Your task to perform on an android device: View the shopping cart on target. Image 0: 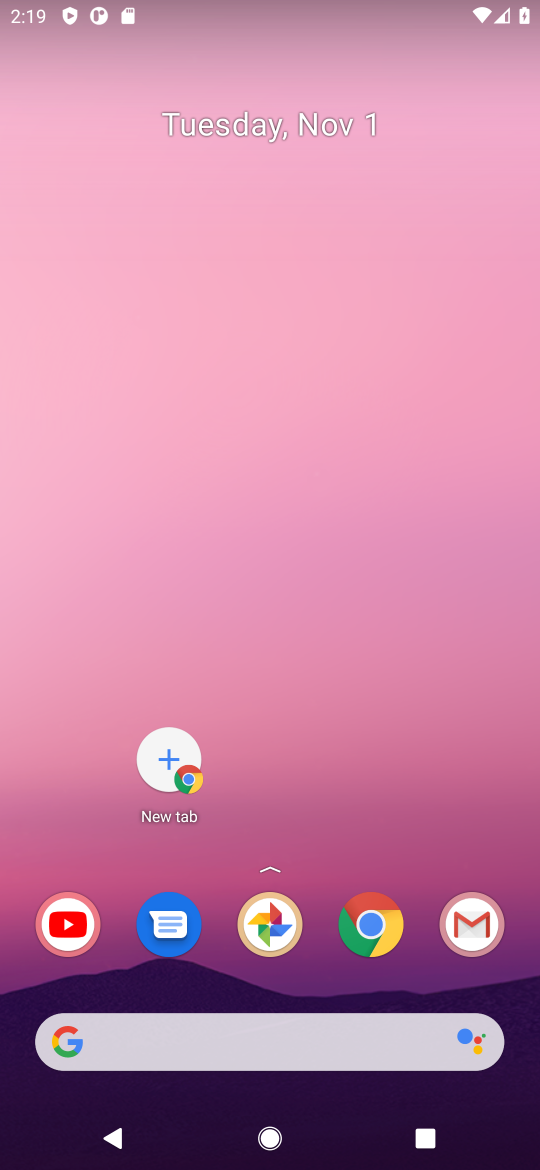
Step 0: click (384, 947)
Your task to perform on an android device: View the shopping cart on target. Image 1: 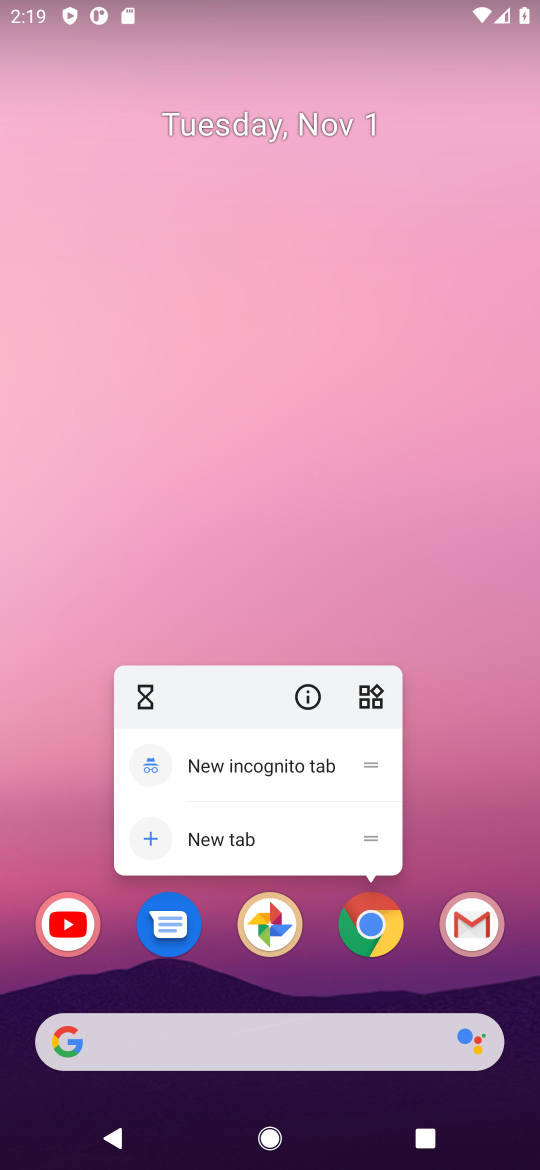
Step 1: click (389, 911)
Your task to perform on an android device: View the shopping cart on target. Image 2: 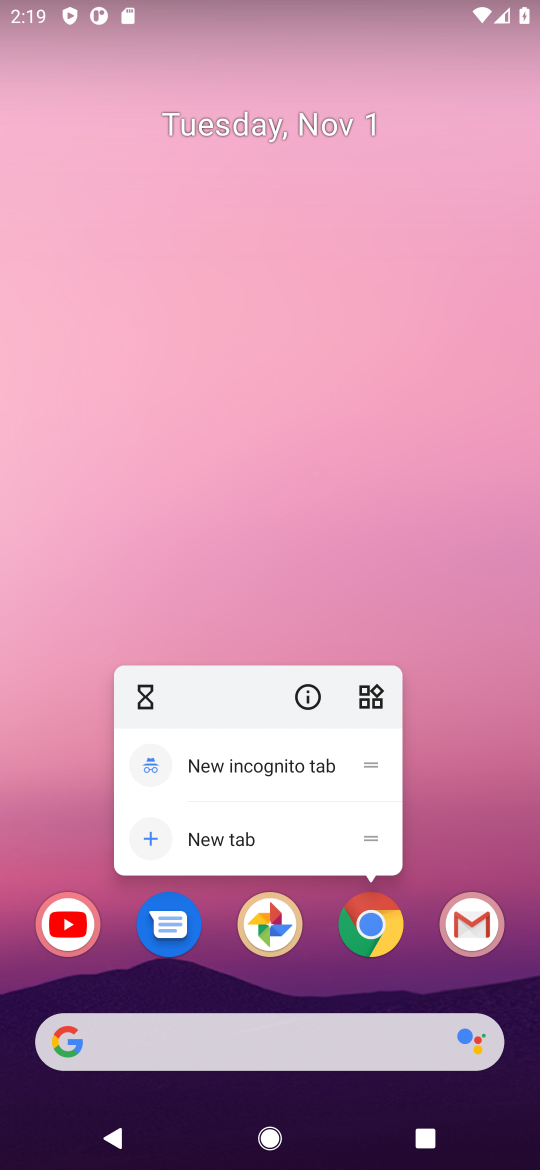
Step 2: click (369, 939)
Your task to perform on an android device: View the shopping cart on target. Image 3: 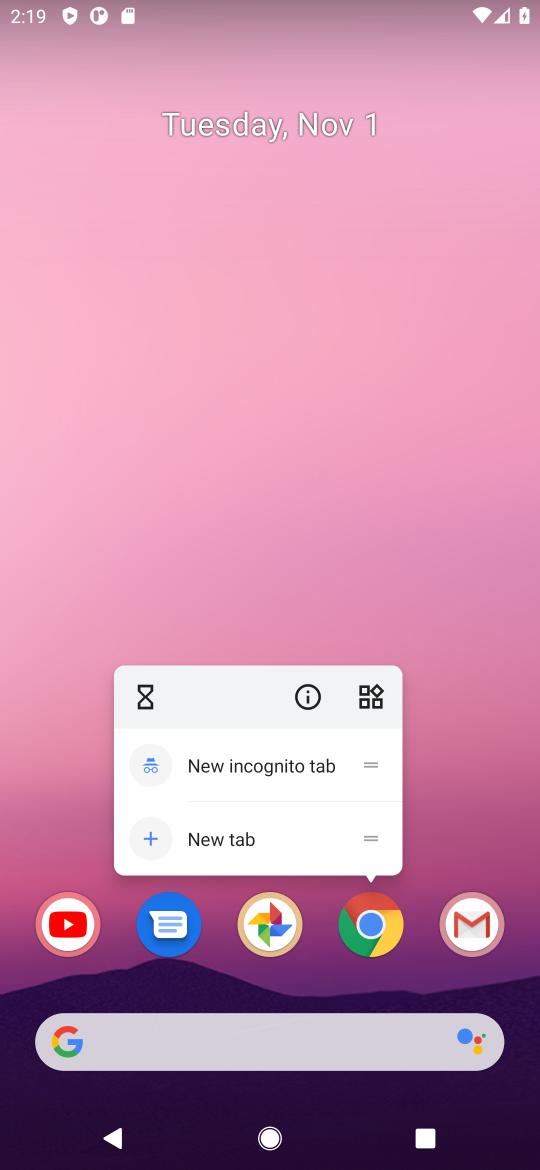
Step 3: click (355, 916)
Your task to perform on an android device: View the shopping cart on target. Image 4: 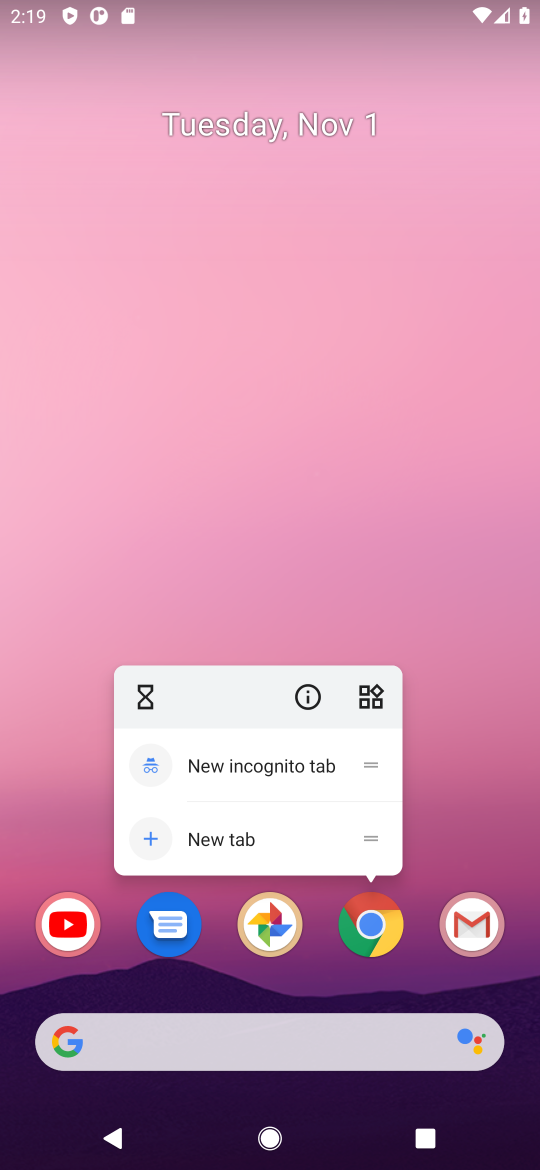
Step 4: click (374, 934)
Your task to perform on an android device: View the shopping cart on target. Image 5: 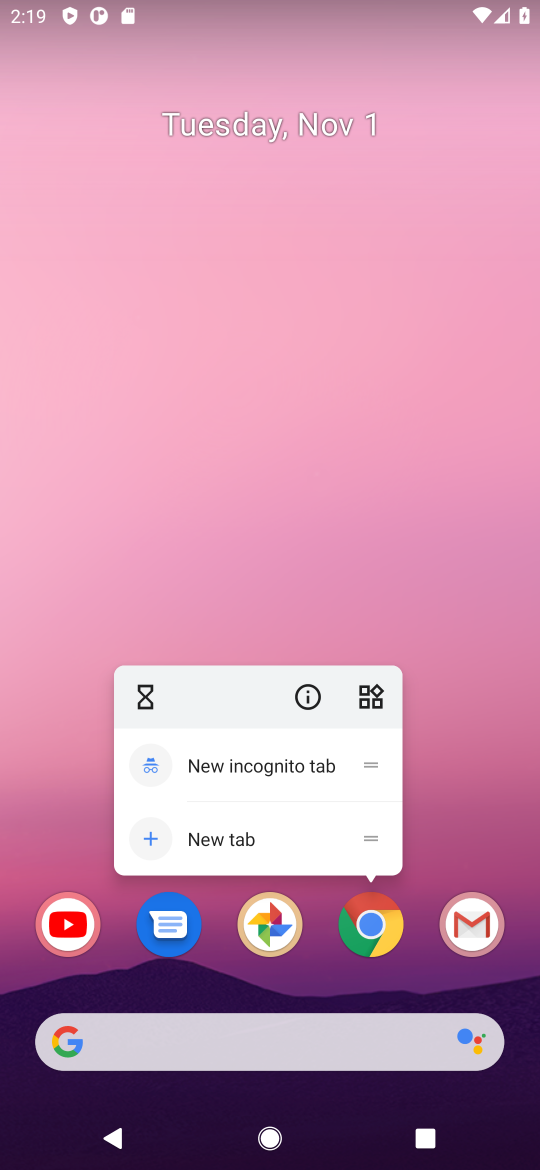
Step 5: click (382, 915)
Your task to perform on an android device: View the shopping cart on target. Image 6: 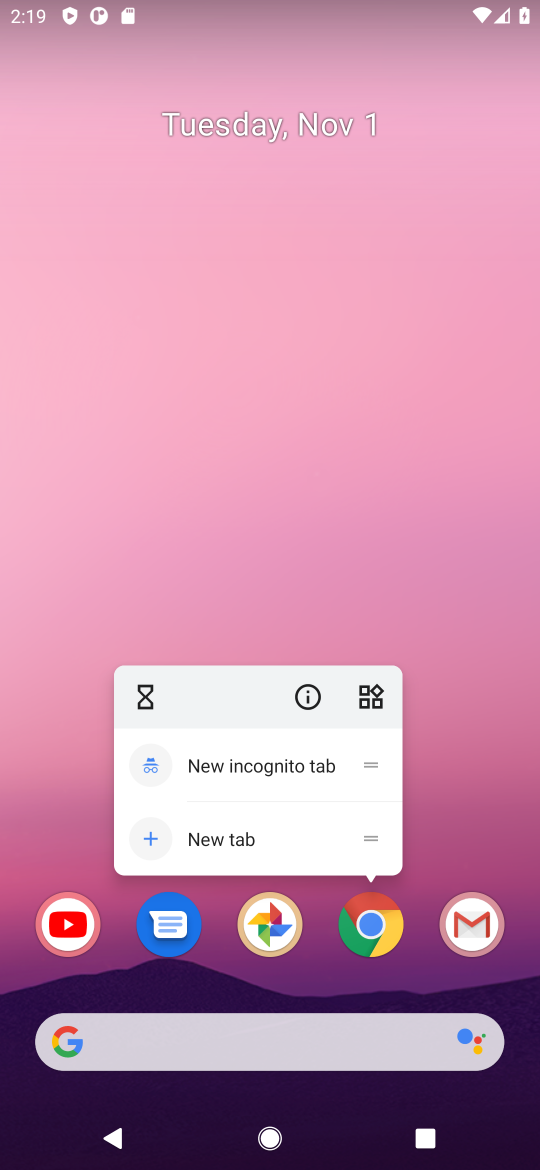
Step 6: click (382, 915)
Your task to perform on an android device: View the shopping cart on target. Image 7: 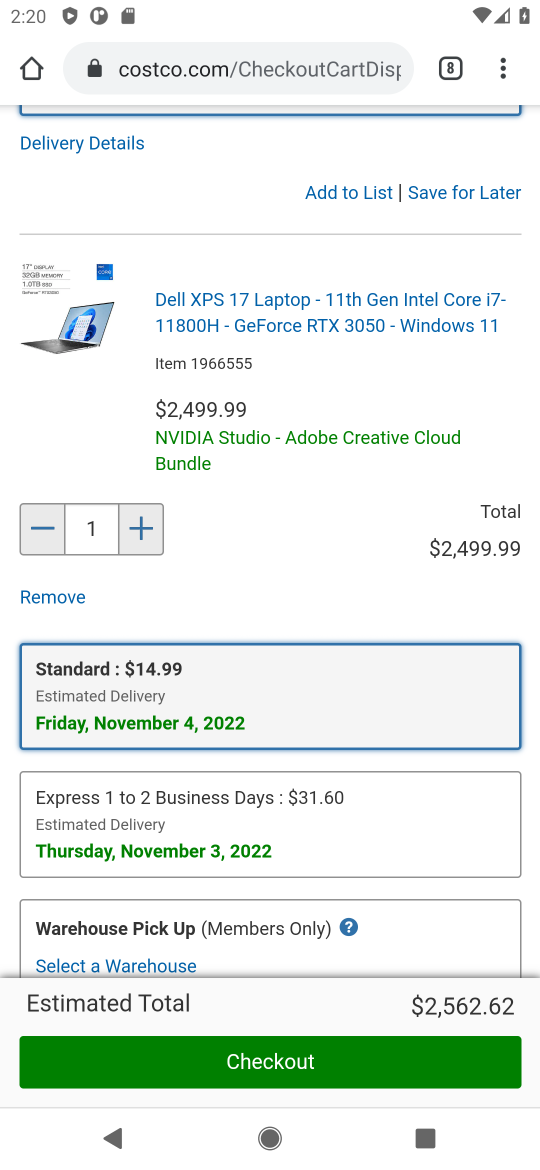
Step 7: click (251, 70)
Your task to perform on an android device: View the shopping cart on target. Image 8: 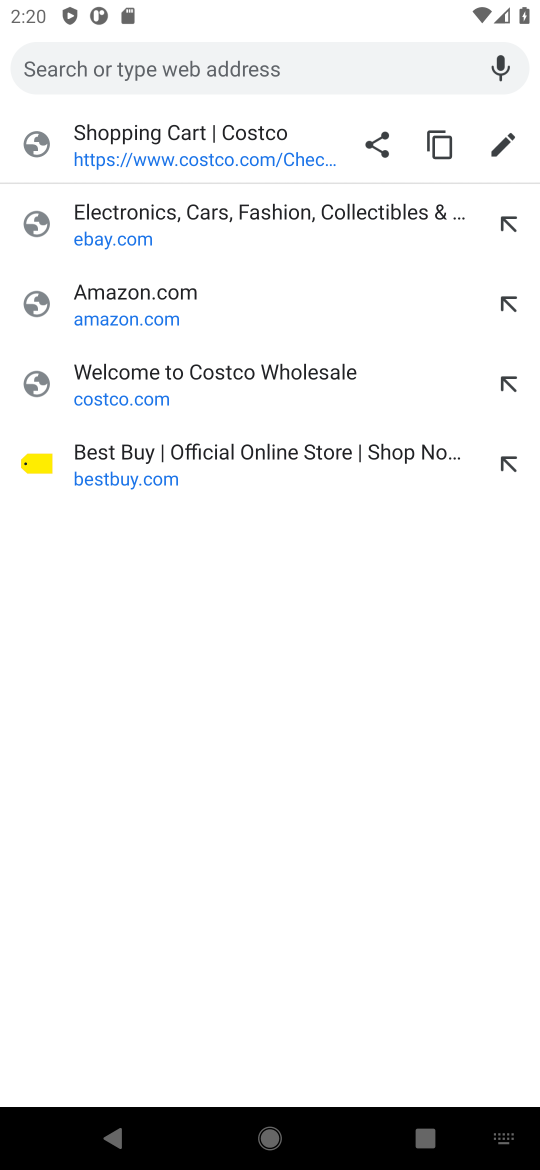
Step 8: type "target"
Your task to perform on an android device: View the shopping cart on target. Image 9: 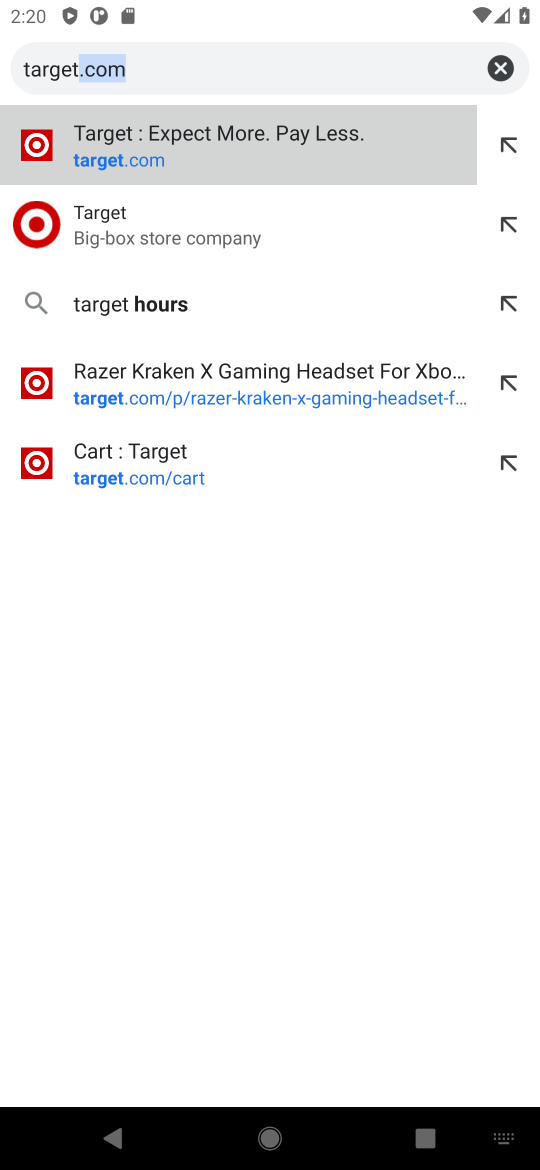
Step 9: click (273, 156)
Your task to perform on an android device: View the shopping cart on target. Image 10: 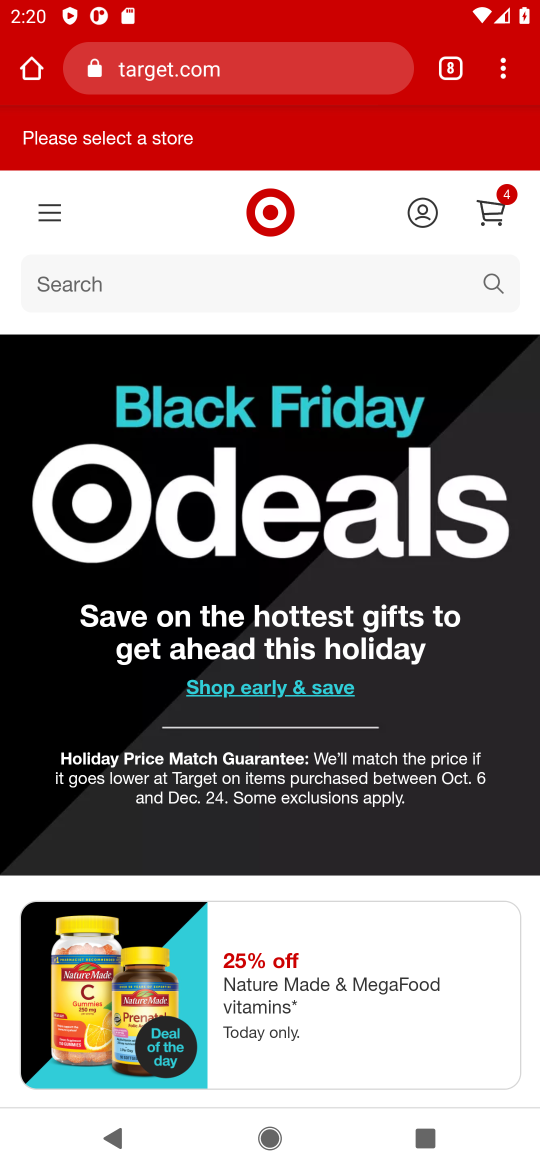
Step 10: click (485, 274)
Your task to perform on an android device: View the shopping cart on target. Image 11: 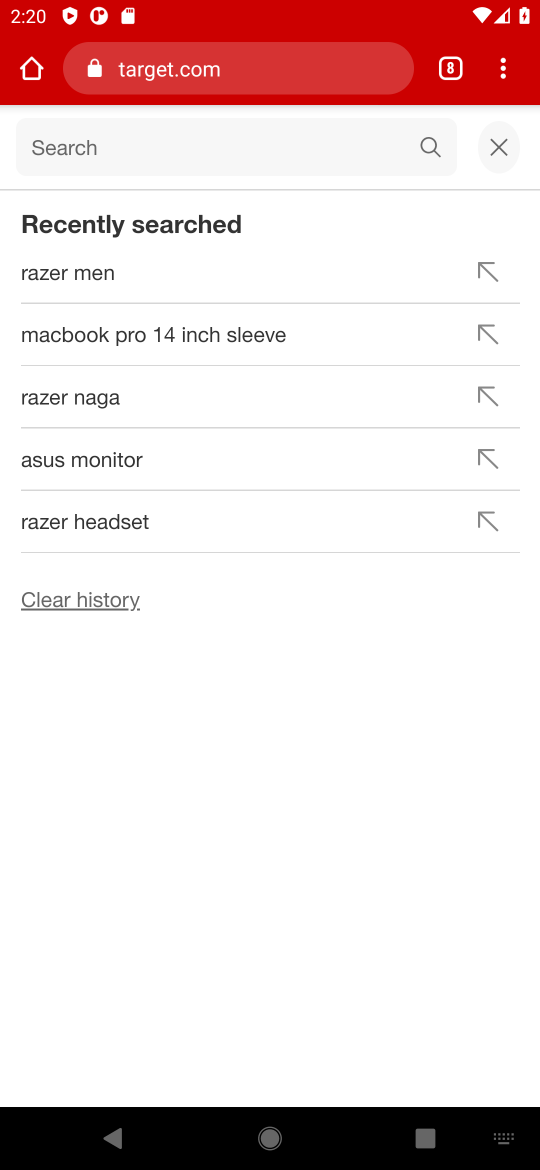
Step 11: type "shooping cart"
Your task to perform on an android device: View the shopping cart on target. Image 12: 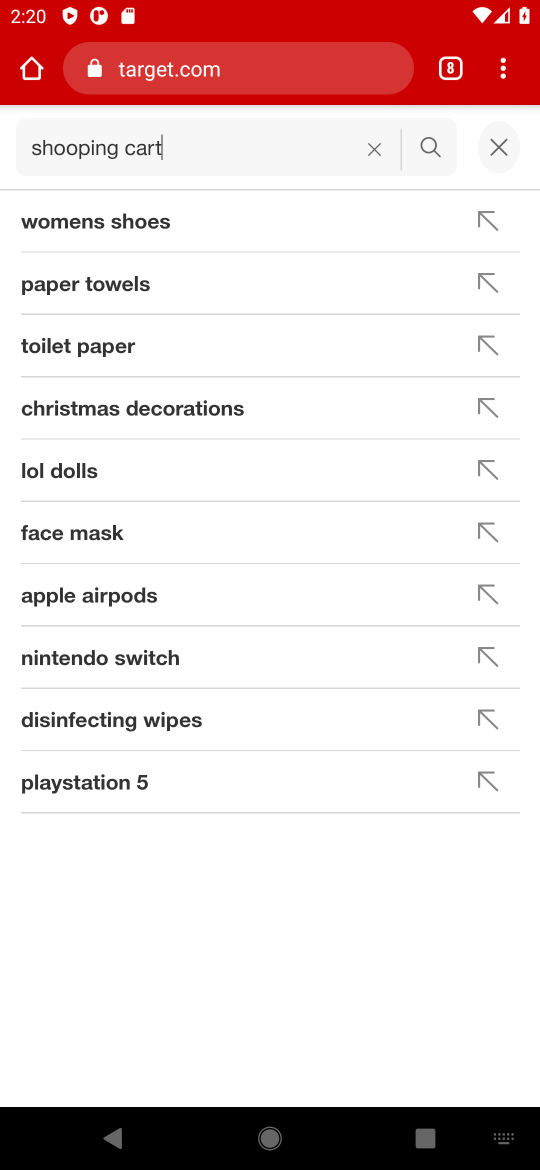
Step 12: type ""
Your task to perform on an android device: View the shopping cart on target. Image 13: 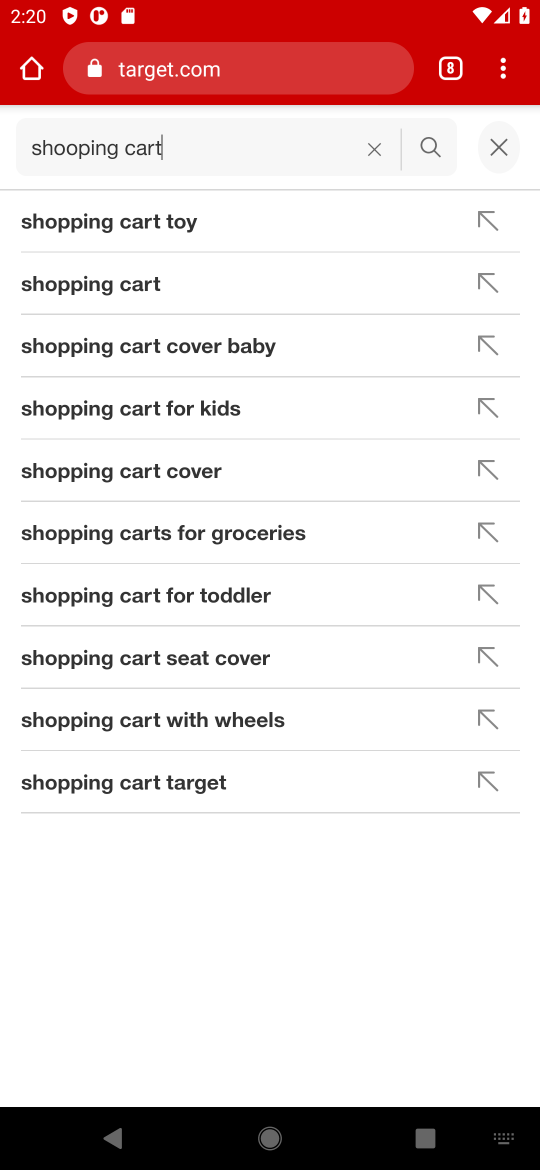
Step 13: click (64, 277)
Your task to perform on an android device: View the shopping cart on target. Image 14: 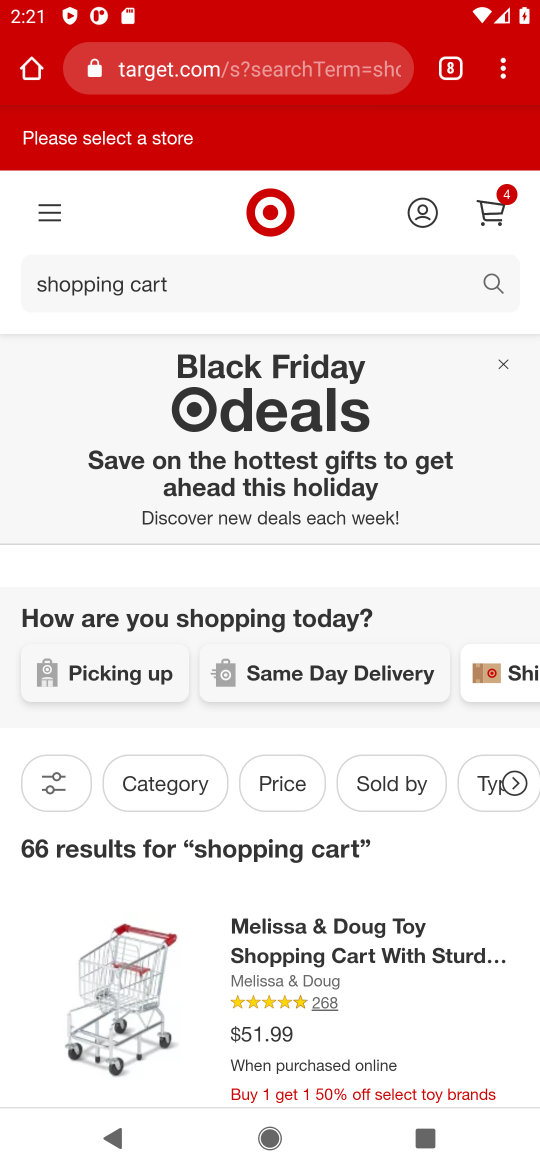
Step 14: click (498, 213)
Your task to perform on an android device: View the shopping cart on target. Image 15: 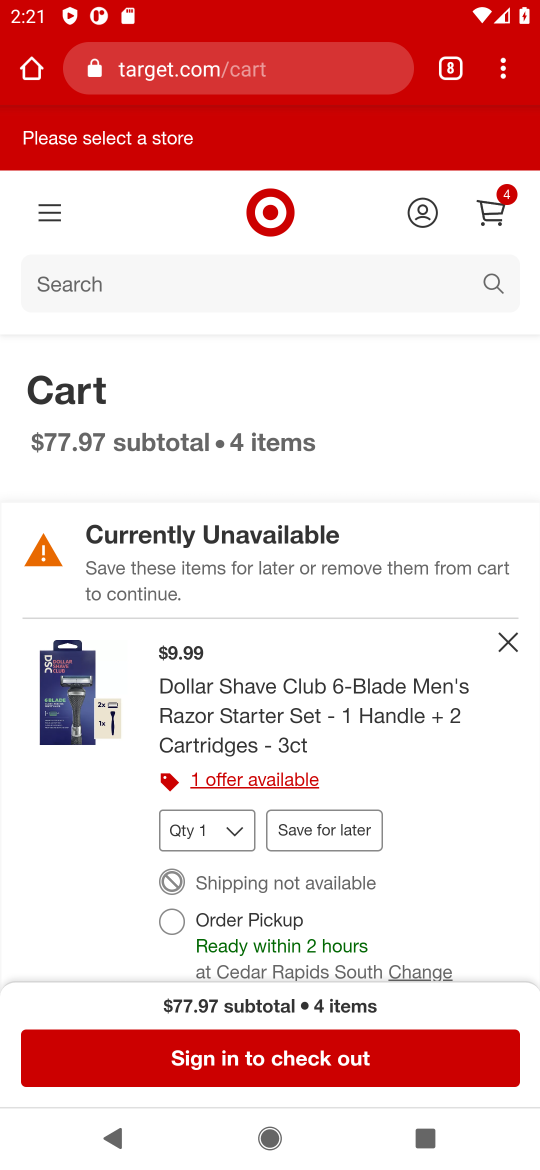
Step 15: drag from (354, 747) to (373, 339)
Your task to perform on an android device: View the shopping cart on target. Image 16: 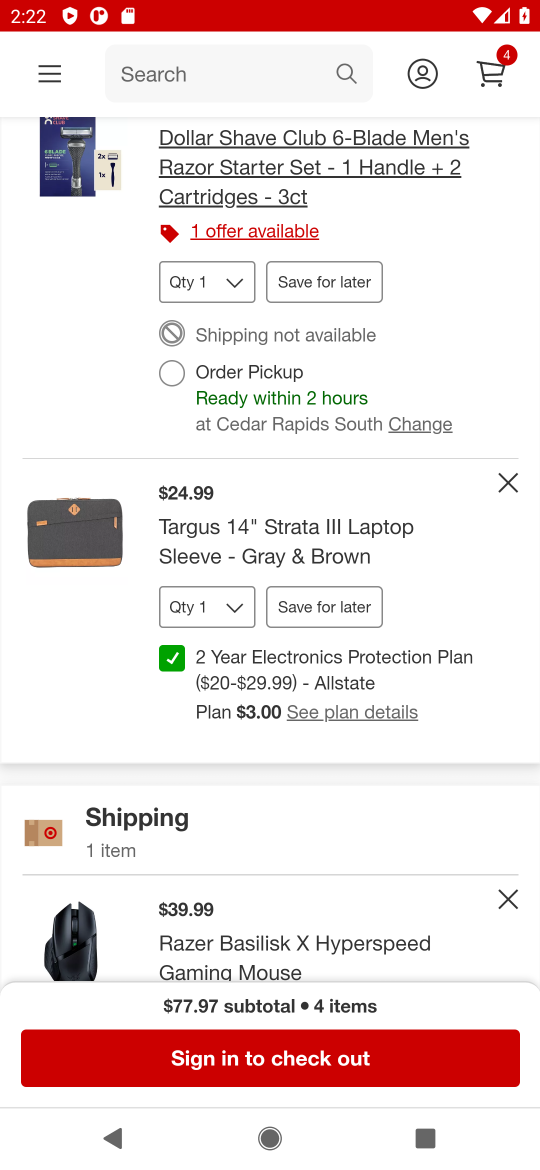
Step 16: drag from (299, 842) to (317, 500)
Your task to perform on an android device: View the shopping cart on target. Image 17: 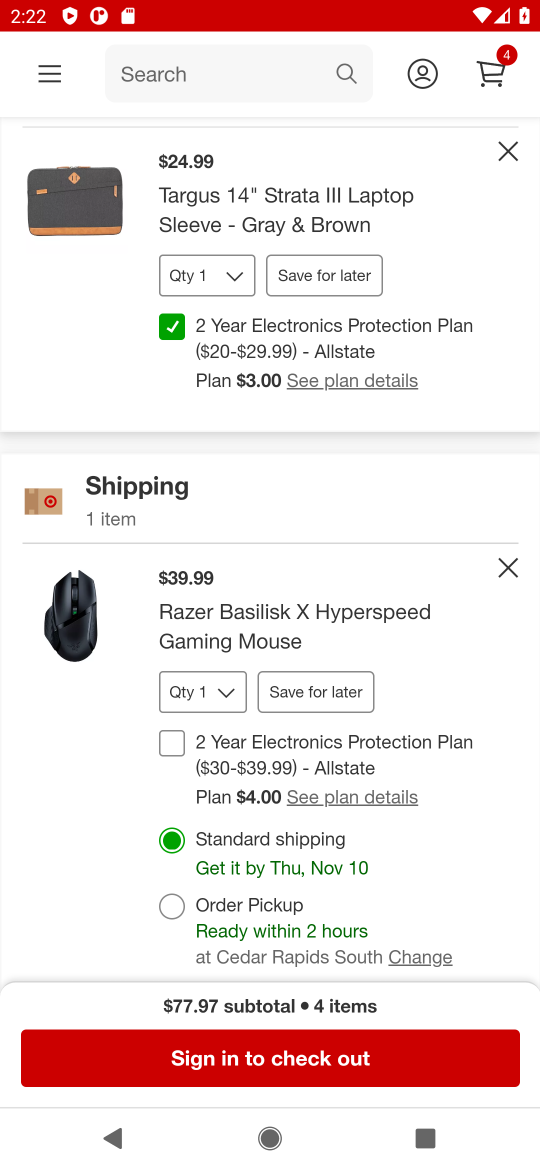
Step 17: drag from (286, 781) to (284, 513)
Your task to perform on an android device: View the shopping cart on target. Image 18: 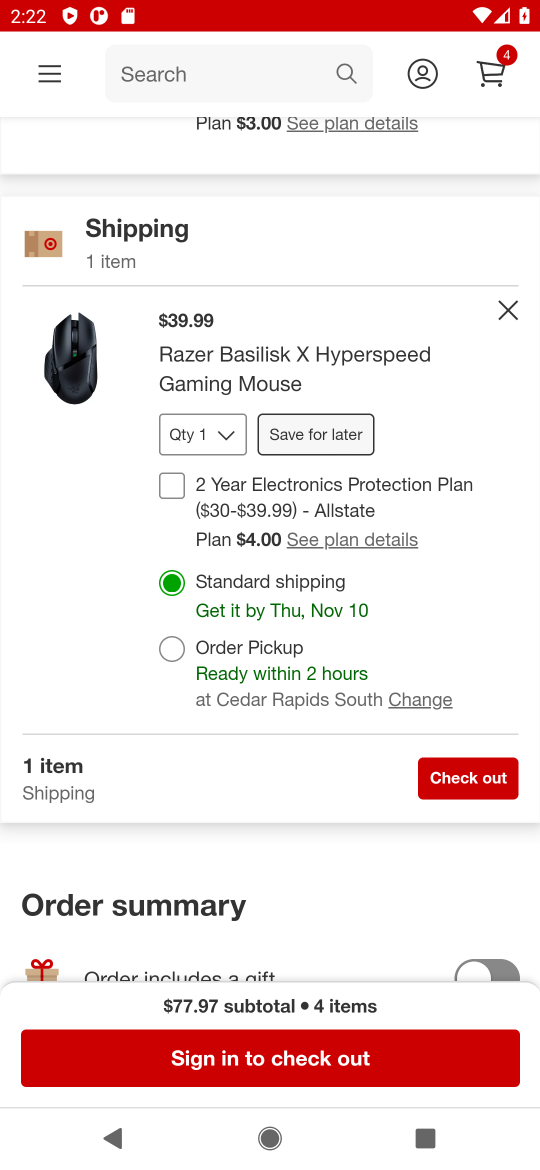
Step 18: drag from (268, 812) to (280, 504)
Your task to perform on an android device: View the shopping cart on target. Image 19: 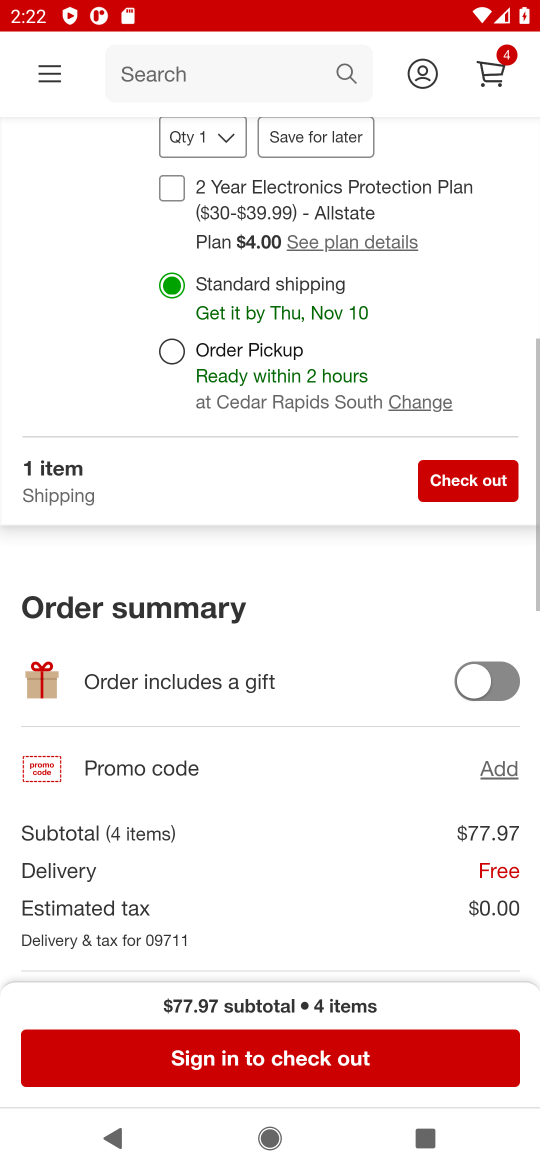
Step 19: drag from (285, 471) to (293, 974)
Your task to perform on an android device: View the shopping cart on target. Image 20: 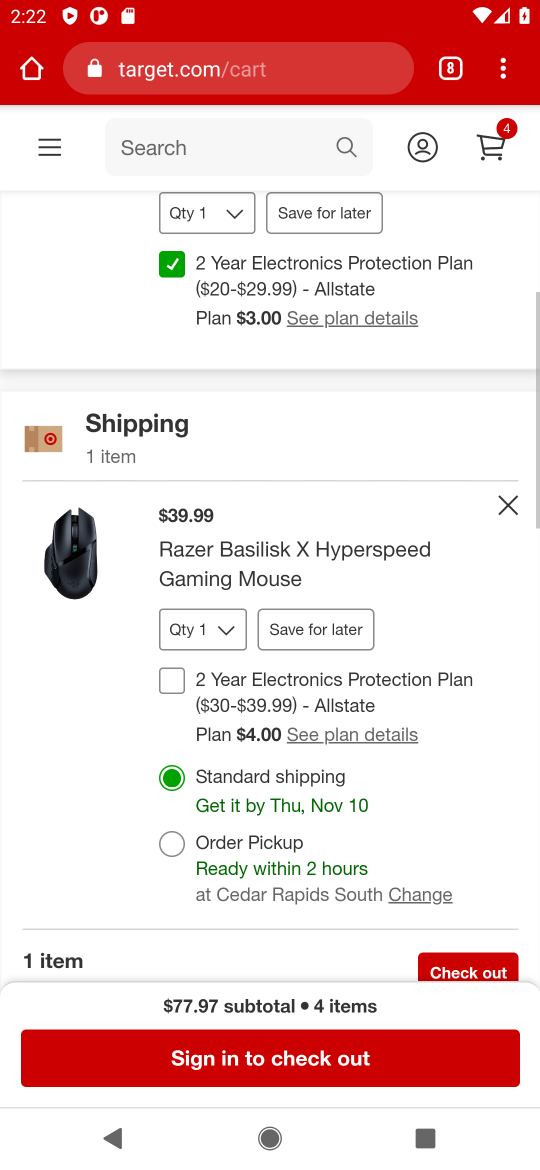
Step 20: drag from (283, 405) to (294, 891)
Your task to perform on an android device: View the shopping cart on target. Image 21: 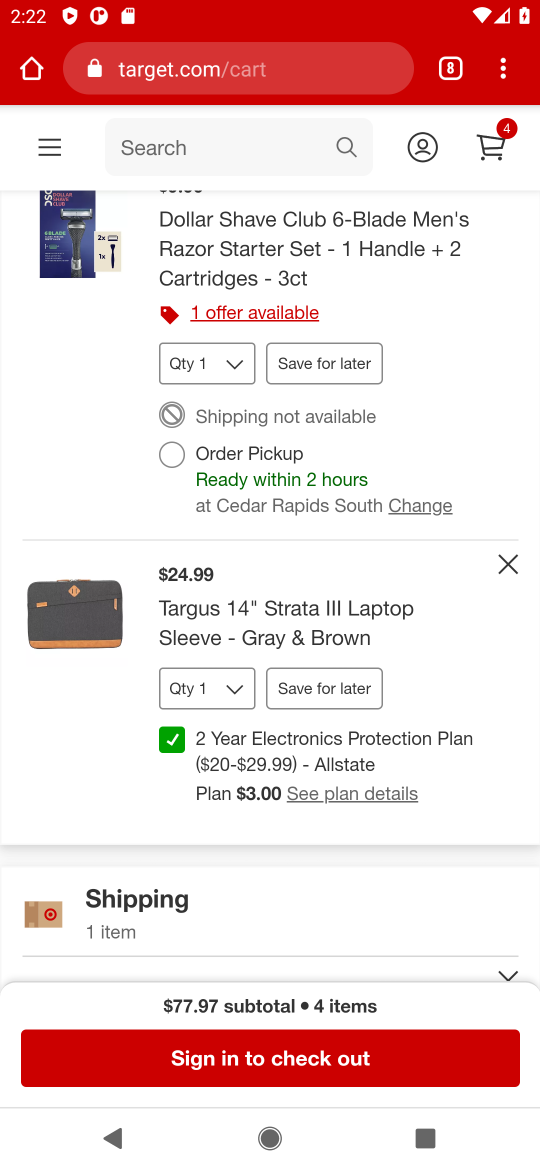
Step 21: drag from (432, 428) to (413, 668)
Your task to perform on an android device: View the shopping cart on target. Image 22: 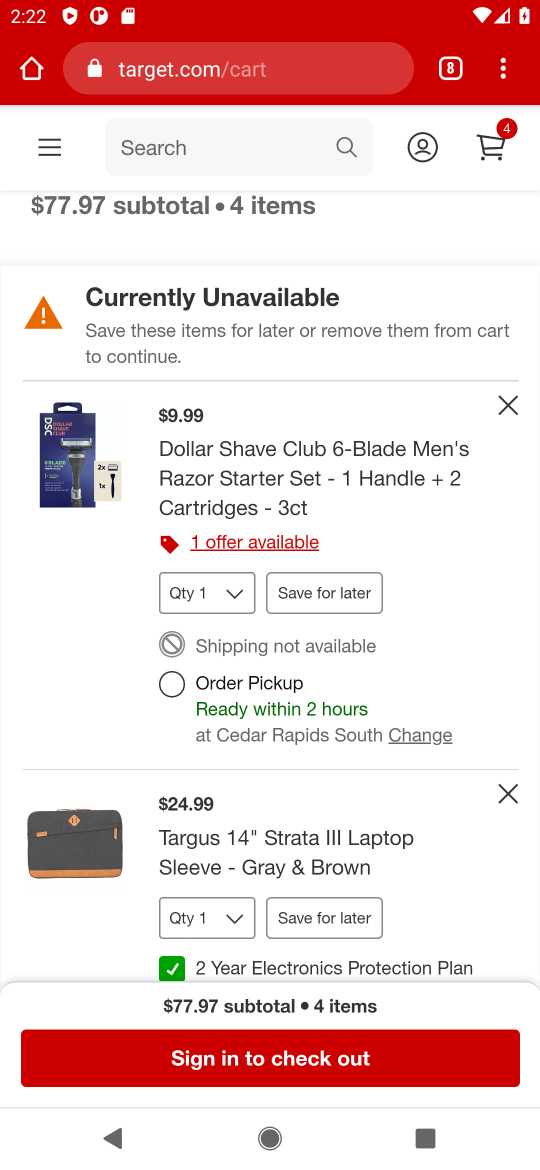
Step 22: click (492, 149)
Your task to perform on an android device: View the shopping cart on target. Image 23: 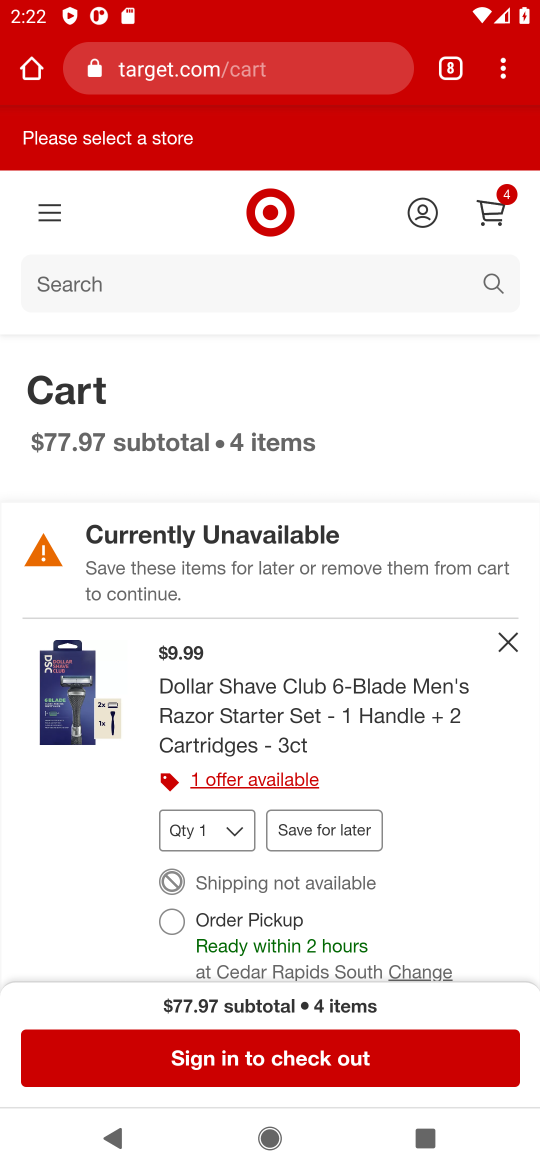
Step 23: drag from (383, 886) to (324, 356)
Your task to perform on an android device: View the shopping cart on target. Image 24: 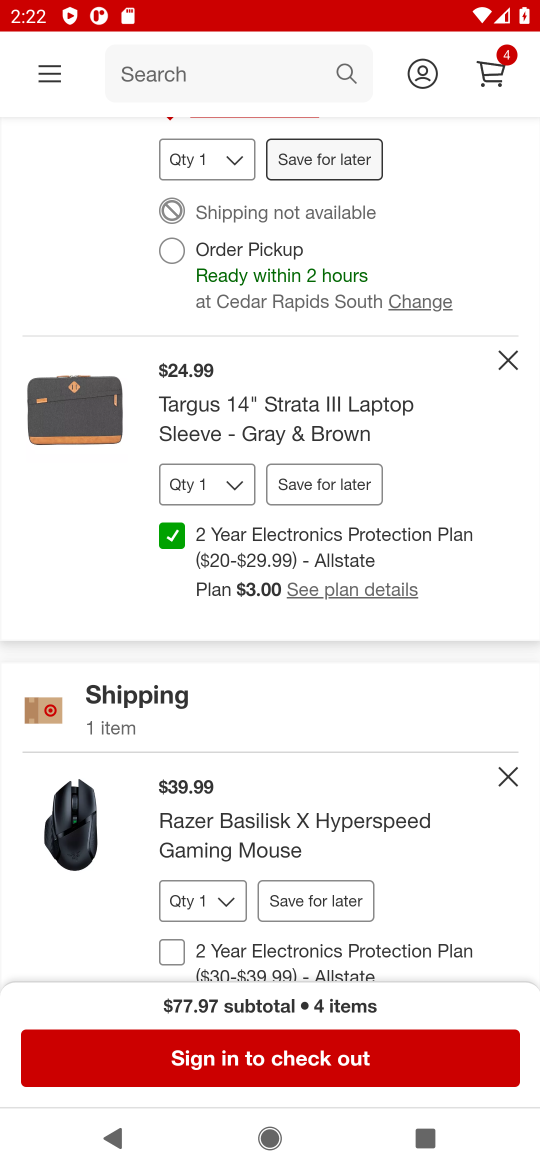
Step 24: click (244, 949)
Your task to perform on an android device: View the shopping cart on target. Image 25: 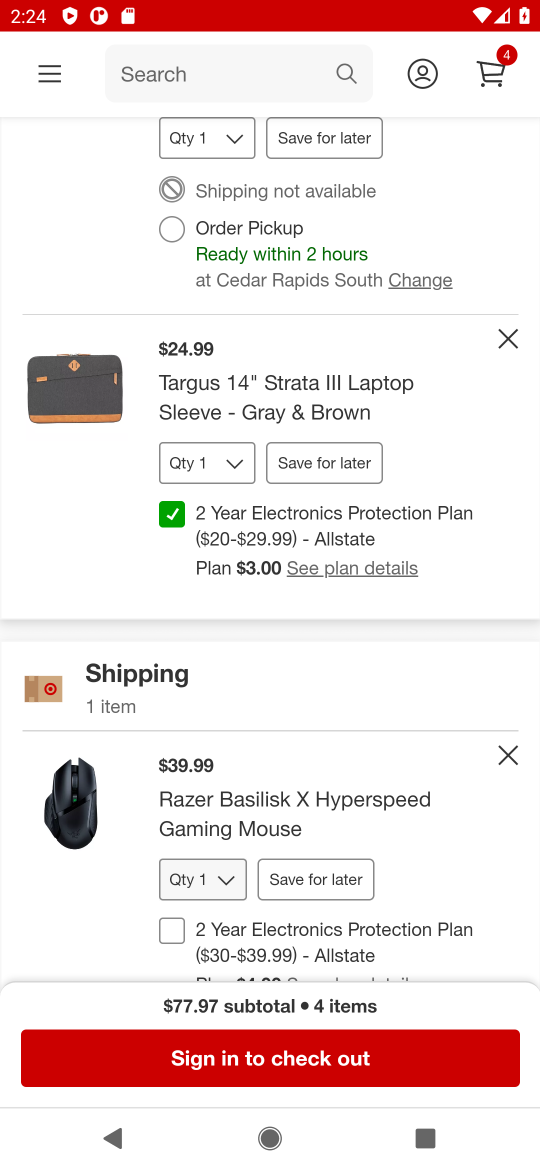
Step 25: task complete